Your task to perform on an android device: Open internet settings Image 0: 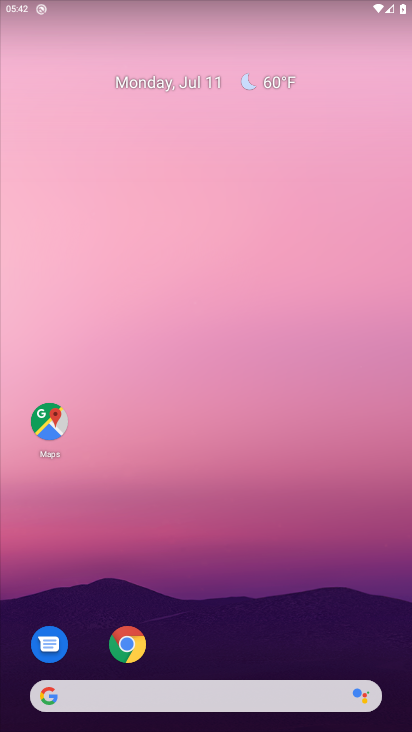
Step 0: drag from (224, 686) to (242, 243)
Your task to perform on an android device: Open internet settings Image 1: 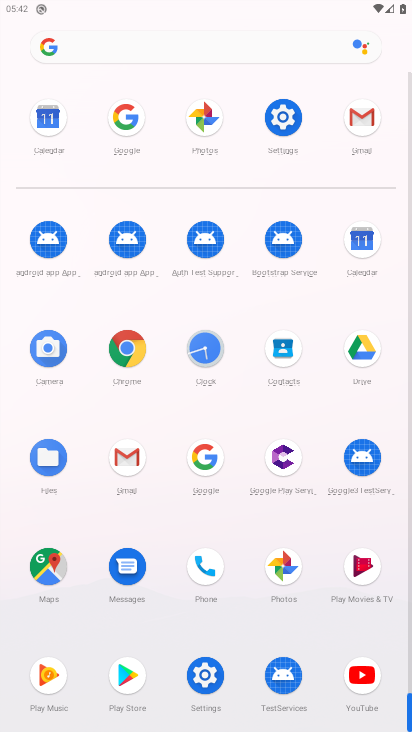
Step 1: click (282, 121)
Your task to perform on an android device: Open internet settings Image 2: 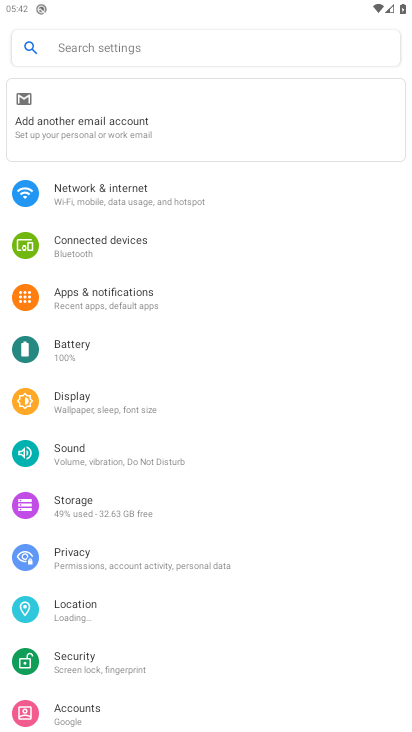
Step 2: click (119, 192)
Your task to perform on an android device: Open internet settings Image 3: 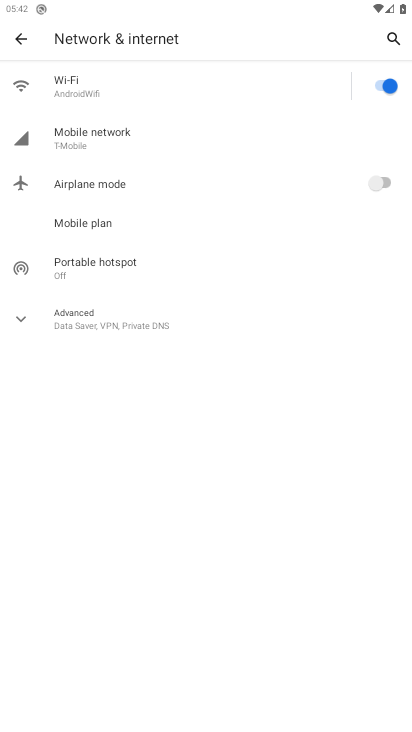
Step 3: click (112, 324)
Your task to perform on an android device: Open internet settings Image 4: 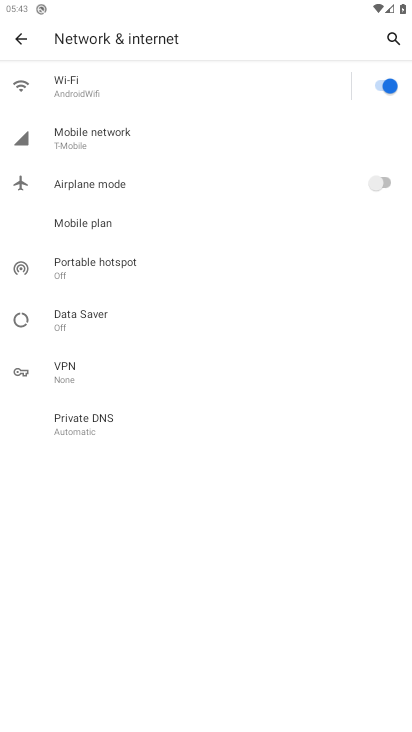
Step 4: task complete